Your task to perform on an android device: Go to Google maps Image 0: 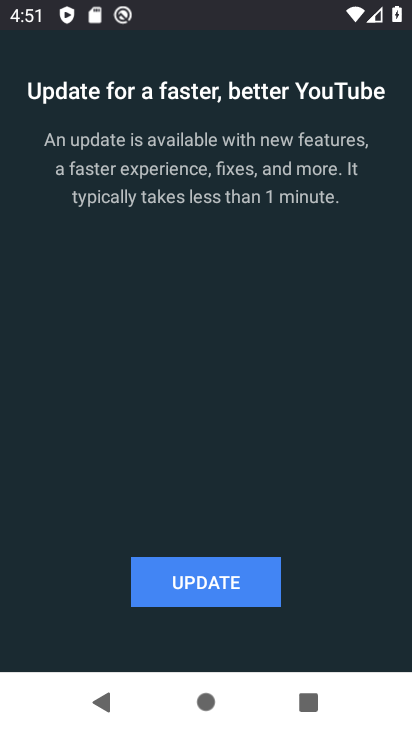
Step 0: press back button
Your task to perform on an android device: Go to Google maps Image 1: 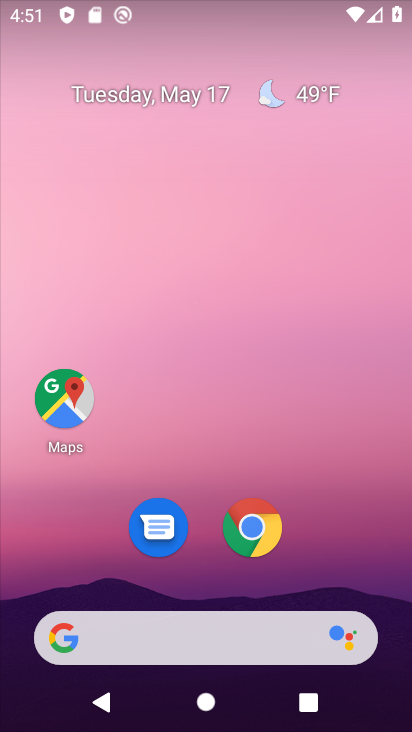
Step 1: drag from (328, 582) to (251, 37)
Your task to perform on an android device: Go to Google maps Image 2: 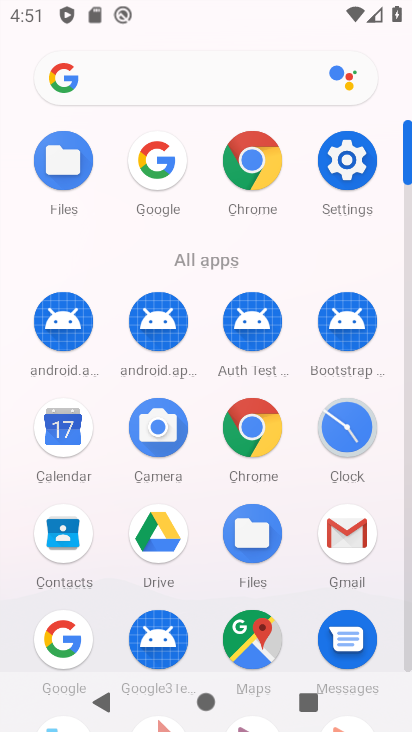
Step 2: drag from (31, 552) to (40, 266)
Your task to perform on an android device: Go to Google maps Image 3: 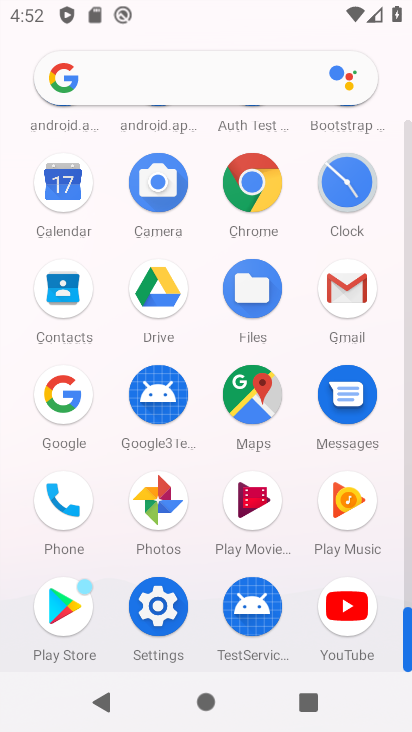
Step 3: click (251, 387)
Your task to perform on an android device: Go to Google maps Image 4: 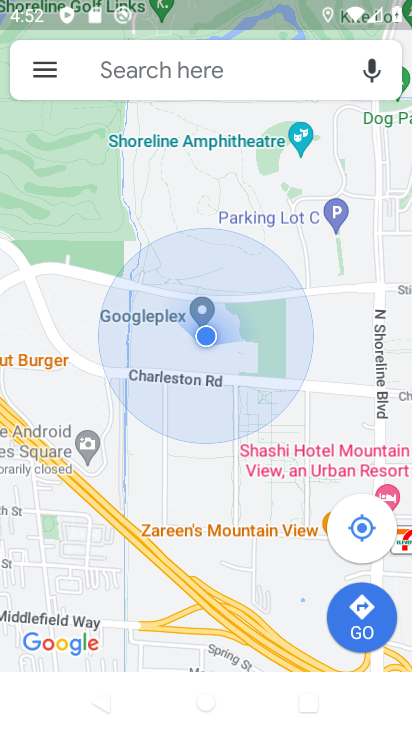
Step 4: task complete